Your task to perform on an android device: Open Chrome and go to settings Image 0: 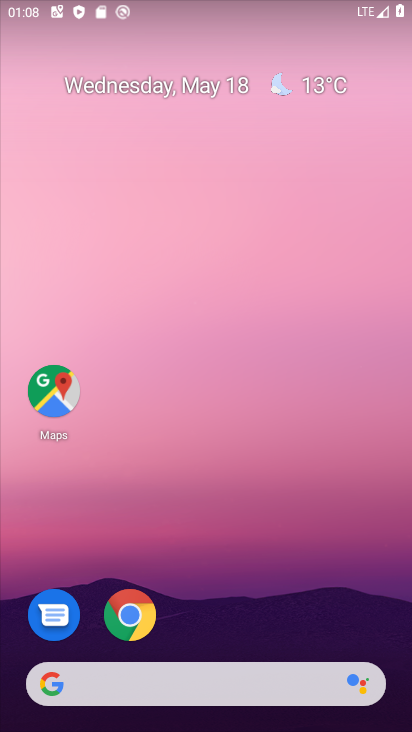
Step 0: press home button
Your task to perform on an android device: Open Chrome and go to settings Image 1: 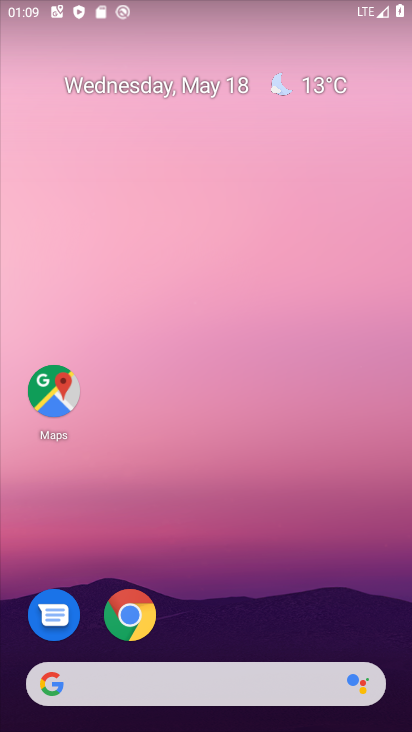
Step 1: click (132, 620)
Your task to perform on an android device: Open Chrome and go to settings Image 2: 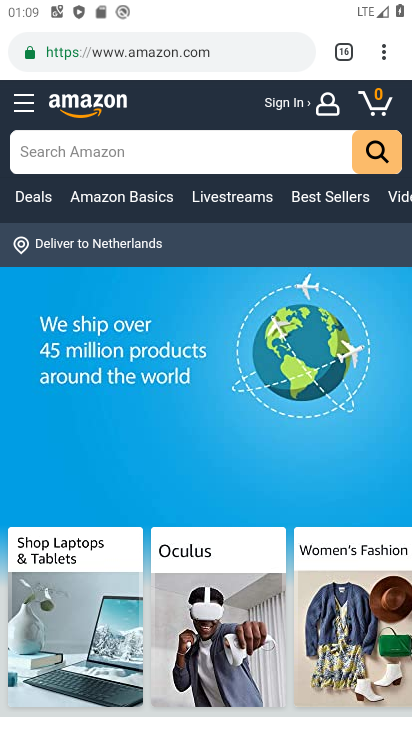
Step 2: task complete